Your task to perform on an android device: What is the recent news? Image 0: 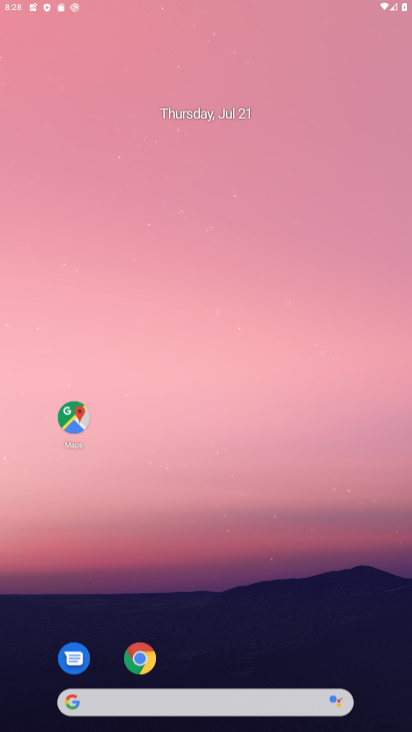
Step 0: press home button
Your task to perform on an android device: What is the recent news? Image 1: 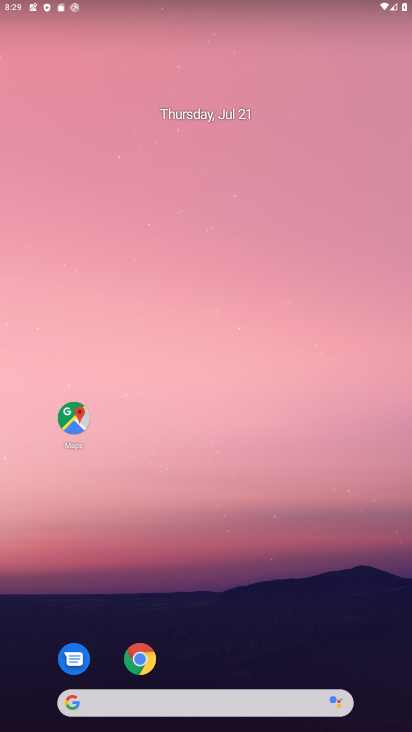
Step 1: task complete